Your task to perform on an android device: see sites visited before in the chrome app Image 0: 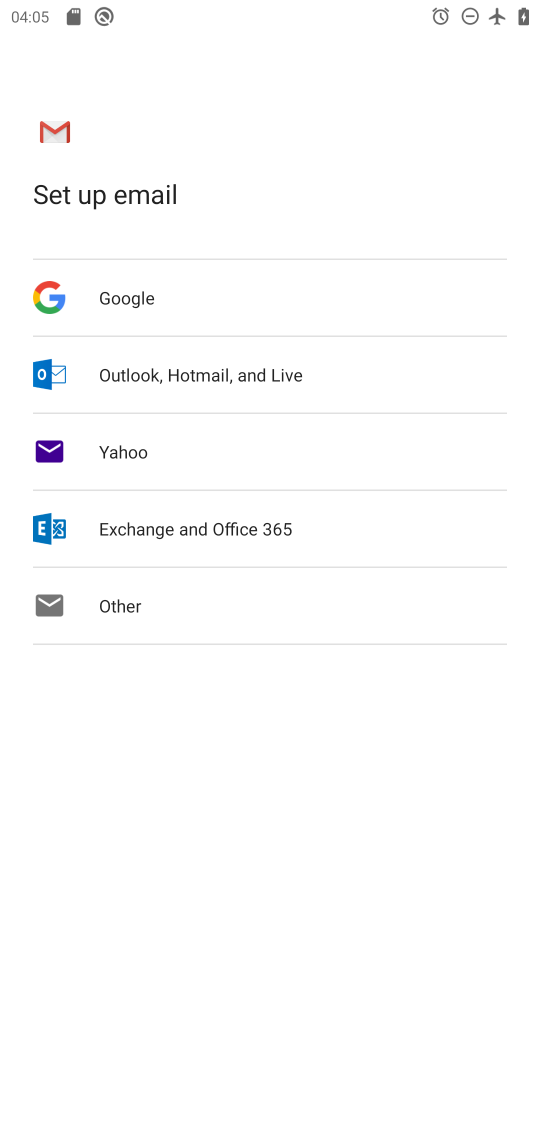
Step 0: press home button
Your task to perform on an android device: see sites visited before in the chrome app Image 1: 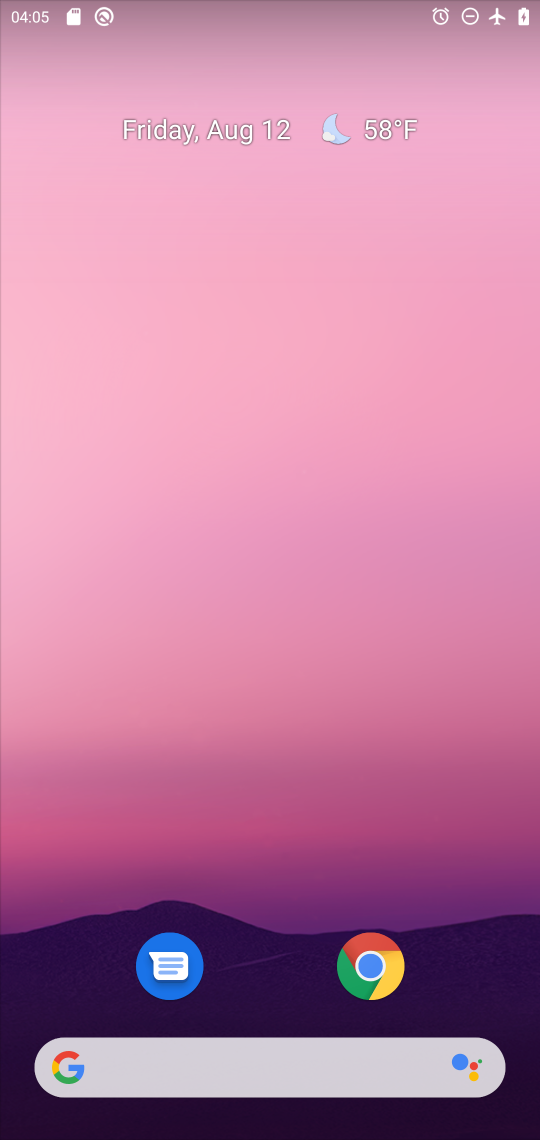
Step 1: drag from (277, 948) to (332, 39)
Your task to perform on an android device: see sites visited before in the chrome app Image 2: 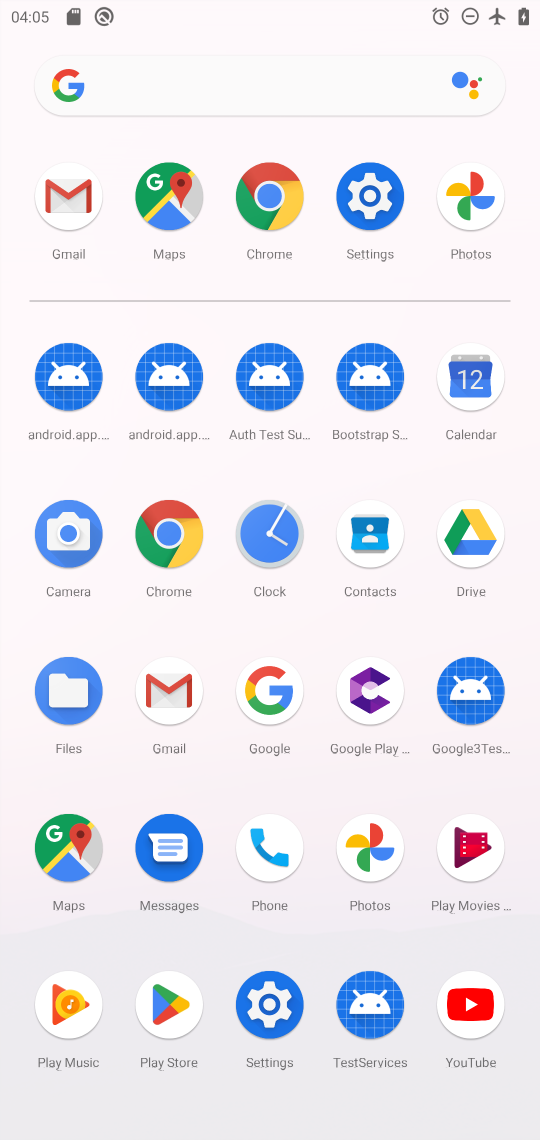
Step 2: click (169, 534)
Your task to perform on an android device: see sites visited before in the chrome app Image 3: 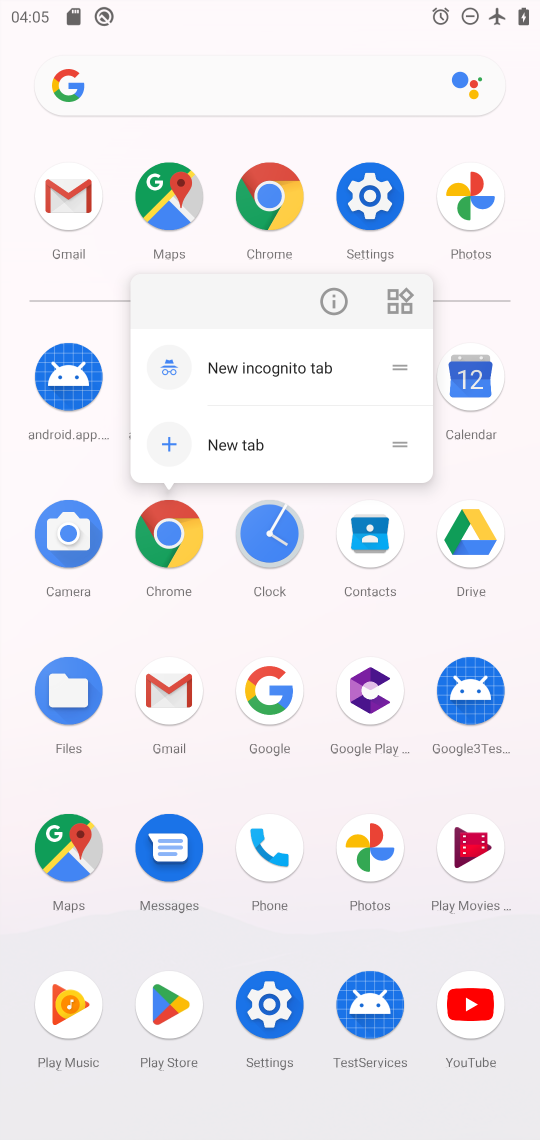
Step 3: click (172, 541)
Your task to perform on an android device: see sites visited before in the chrome app Image 4: 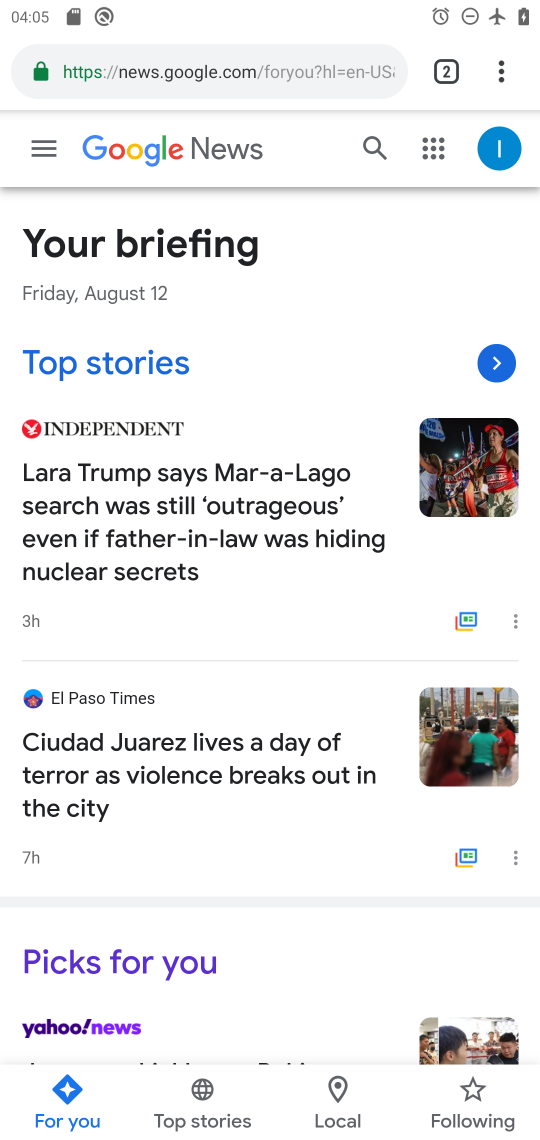
Step 4: task complete